Your task to perform on an android device: turn on notifications settings in the gmail app Image 0: 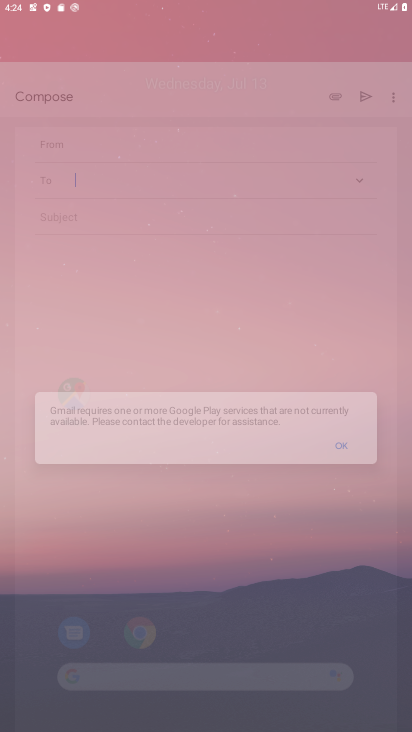
Step 0: press home button
Your task to perform on an android device: turn on notifications settings in the gmail app Image 1: 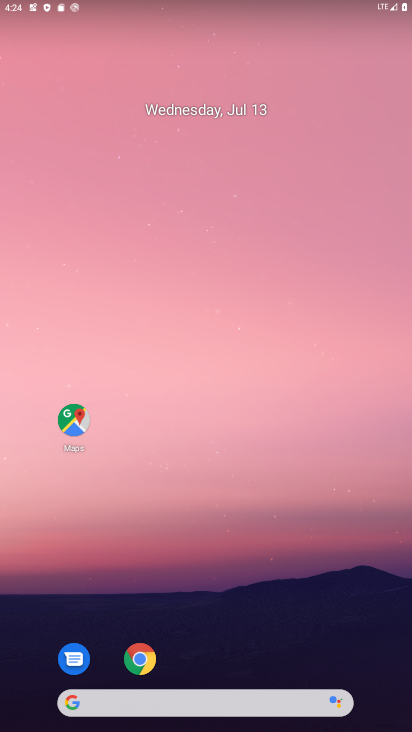
Step 1: drag from (226, 668) to (208, 32)
Your task to perform on an android device: turn on notifications settings in the gmail app Image 2: 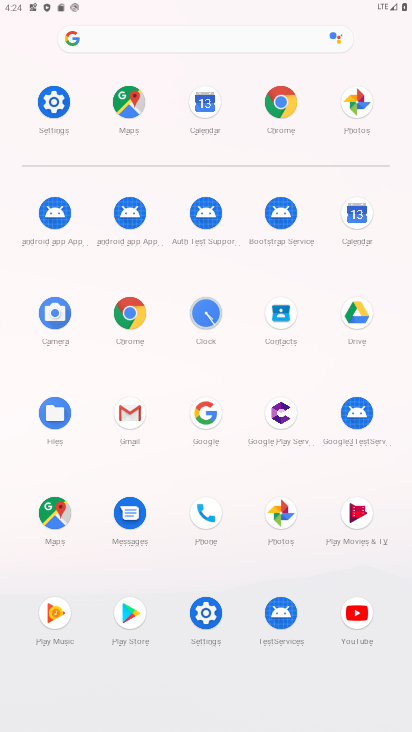
Step 2: click (128, 407)
Your task to perform on an android device: turn on notifications settings in the gmail app Image 3: 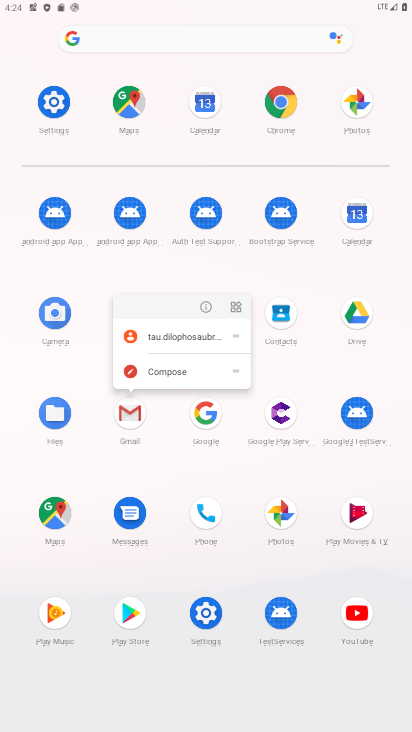
Step 3: click (126, 407)
Your task to perform on an android device: turn on notifications settings in the gmail app Image 4: 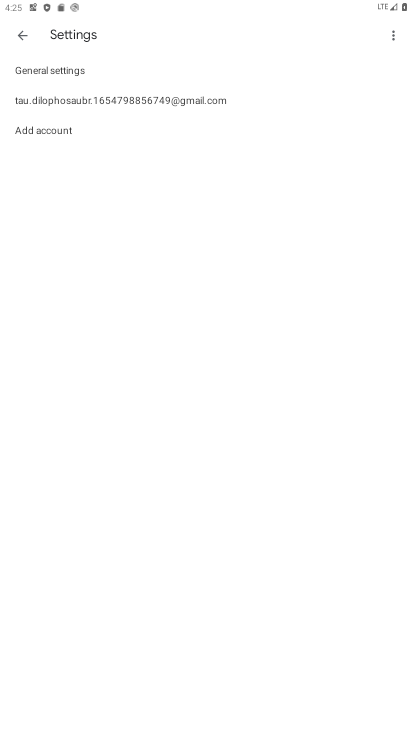
Step 4: click (91, 65)
Your task to perform on an android device: turn on notifications settings in the gmail app Image 5: 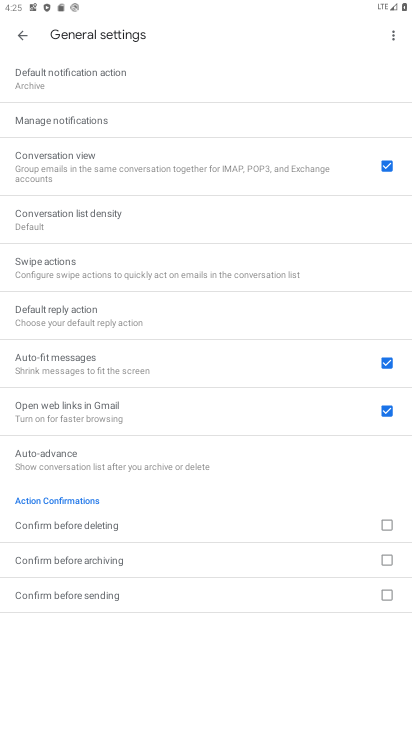
Step 5: click (90, 115)
Your task to perform on an android device: turn on notifications settings in the gmail app Image 6: 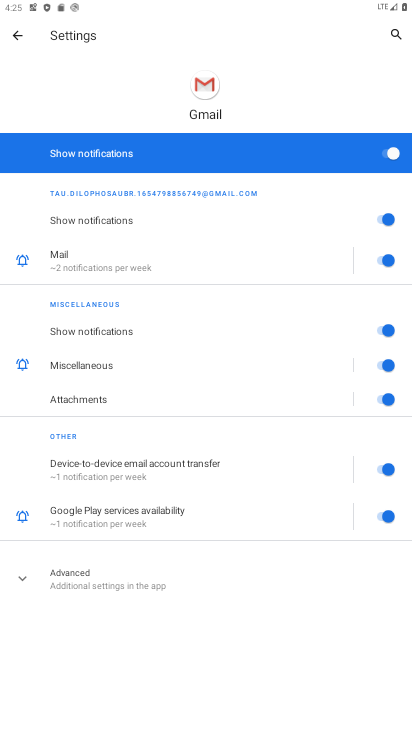
Step 6: task complete